Your task to perform on an android device: Open the calendar and show me this week's events? Image 0: 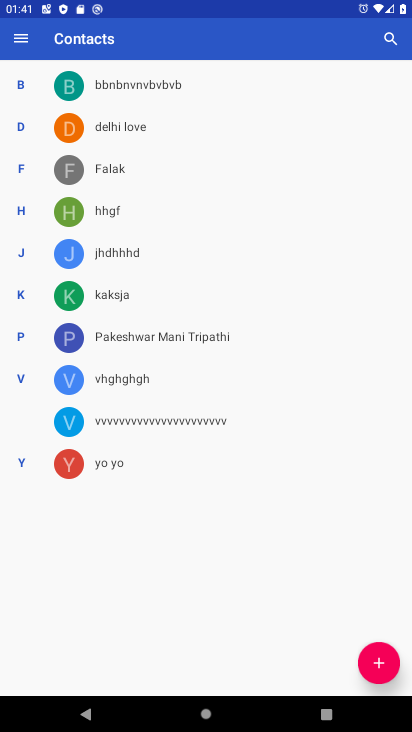
Step 0: press home button
Your task to perform on an android device: Open the calendar and show me this week's events? Image 1: 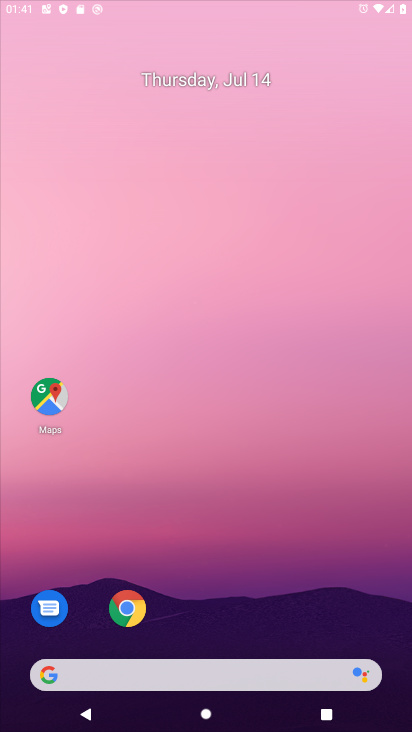
Step 1: drag from (251, 613) to (200, 168)
Your task to perform on an android device: Open the calendar and show me this week's events? Image 2: 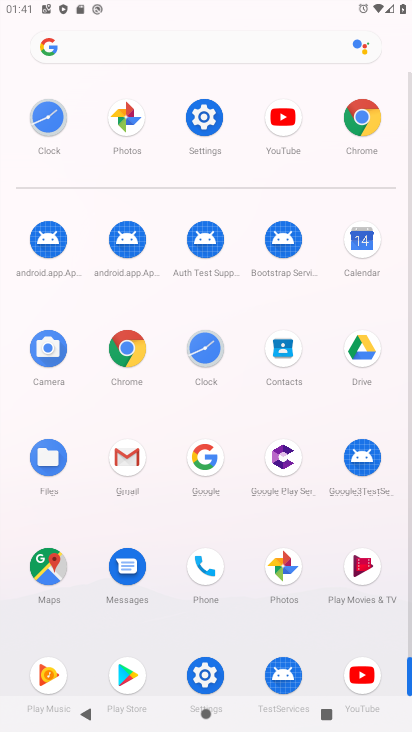
Step 2: click (360, 261)
Your task to perform on an android device: Open the calendar and show me this week's events? Image 3: 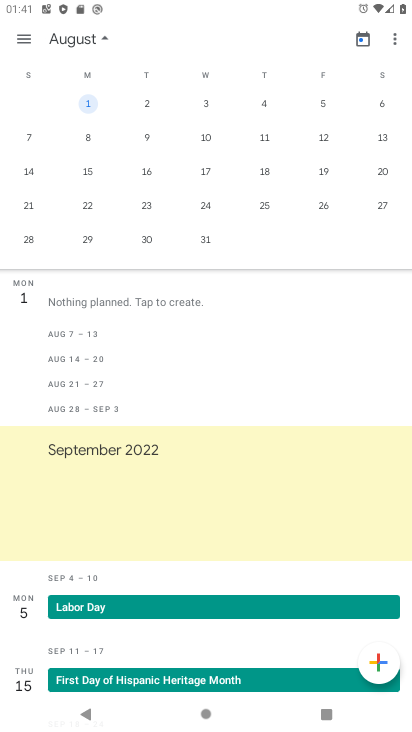
Step 3: click (397, 28)
Your task to perform on an android device: Open the calendar and show me this week's events? Image 4: 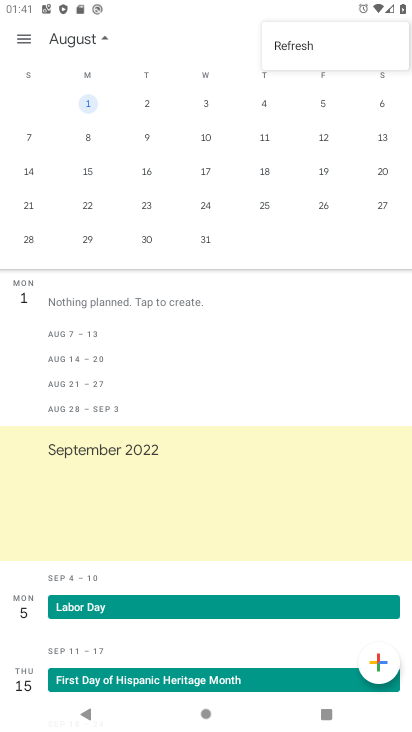
Step 4: click (190, 130)
Your task to perform on an android device: Open the calendar and show me this week's events? Image 5: 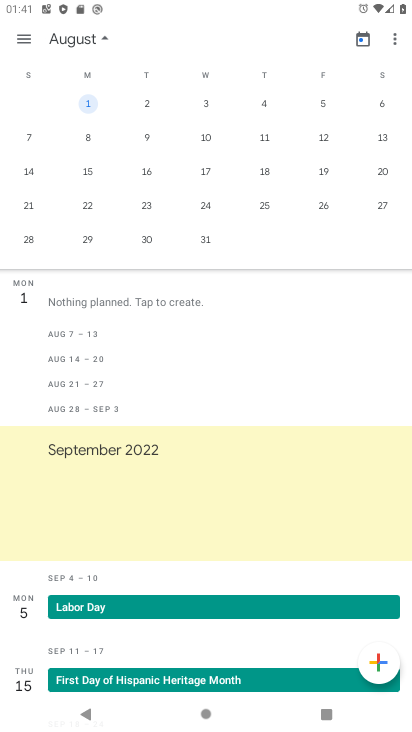
Step 5: drag from (139, 468) to (168, 15)
Your task to perform on an android device: Open the calendar and show me this week's events? Image 6: 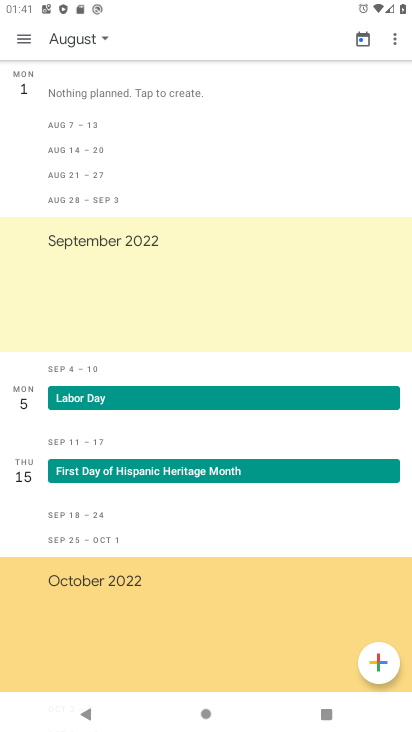
Step 6: click (97, 33)
Your task to perform on an android device: Open the calendar and show me this week's events? Image 7: 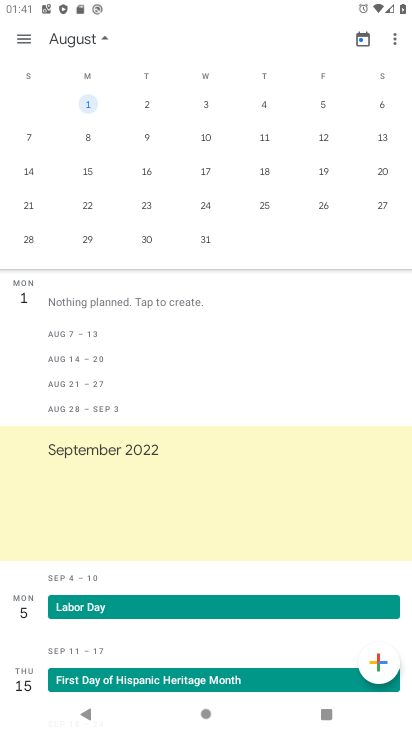
Step 7: drag from (88, 176) to (384, 214)
Your task to perform on an android device: Open the calendar and show me this week's events? Image 8: 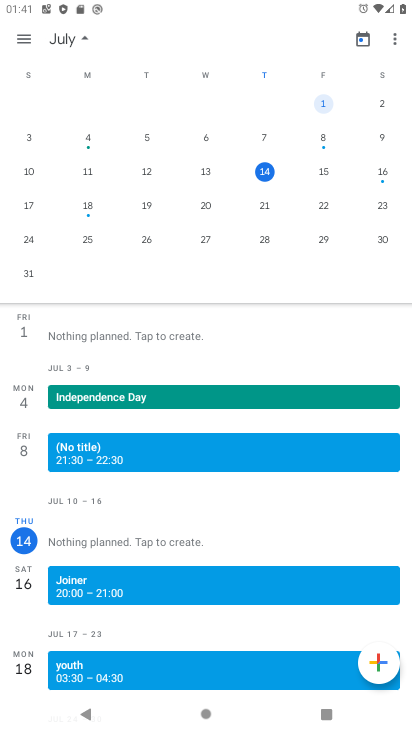
Step 8: click (86, 32)
Your task to perform on an android device: Open the calendar and show me this week's events? Image 9: 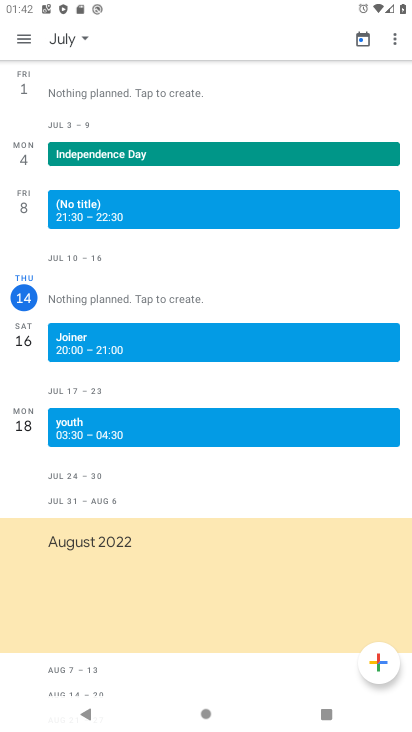
Step 9: click (95, 37)
Your task to perform on an android device: Open the calendar and show me this week's events? Image 10: 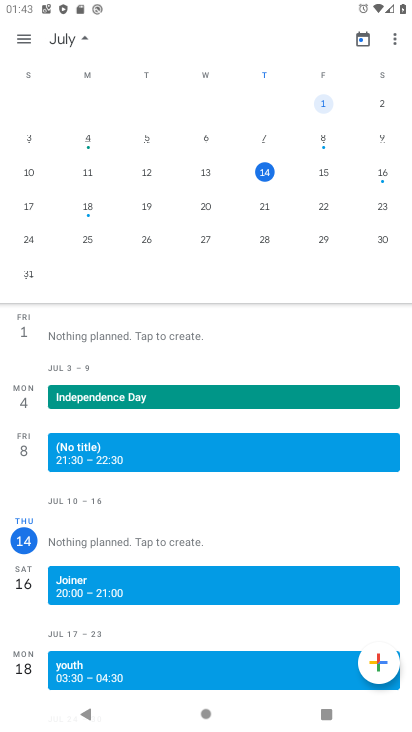
Step 10: click (275, 213)
Your task to perform on an android device: Open the calendar and show me this week's events? Image 11: 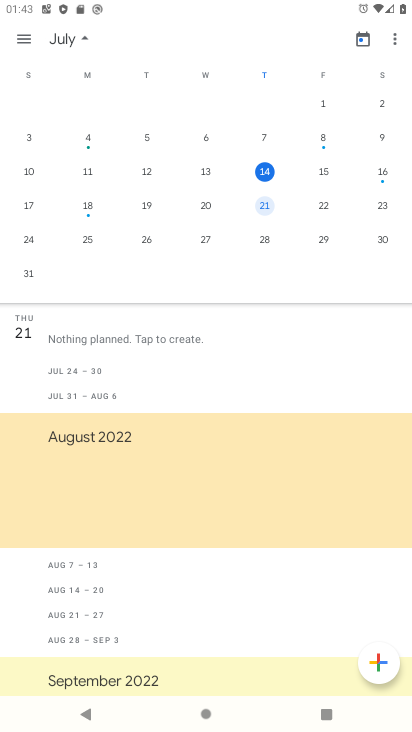
Step 11: click (81, 49)
Your task to perform on an android device: Open the calendar and show me this week's events? Image 12: 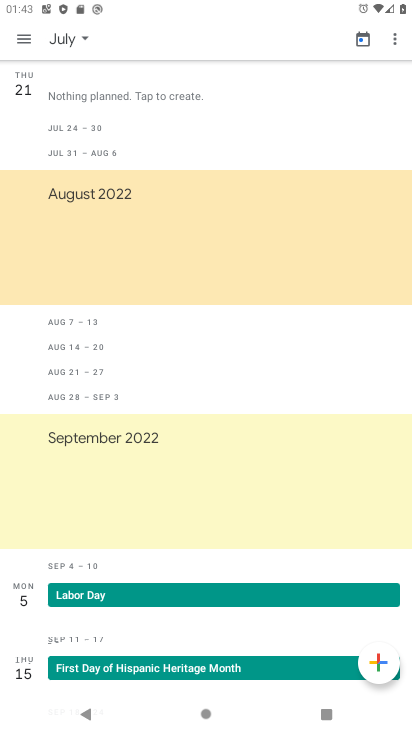
Step 12: task complete